Your task to perform on an android device: open chrome privacy settings Image 0: 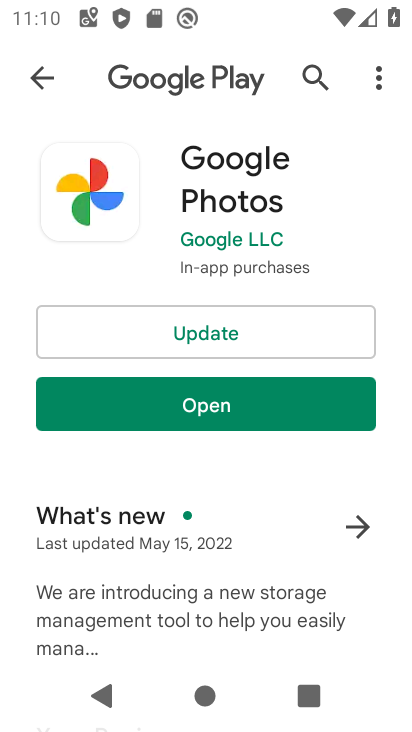
Step 0: press home button
Your task to perform on an android device: open chrome privacy settings Image 1: 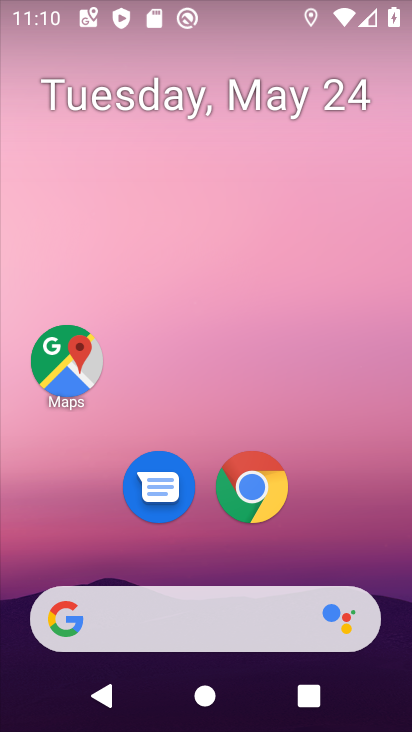
Step 1: click (219, 502)
Your task to perform on an android device: open chrome privacy settings Image 2: 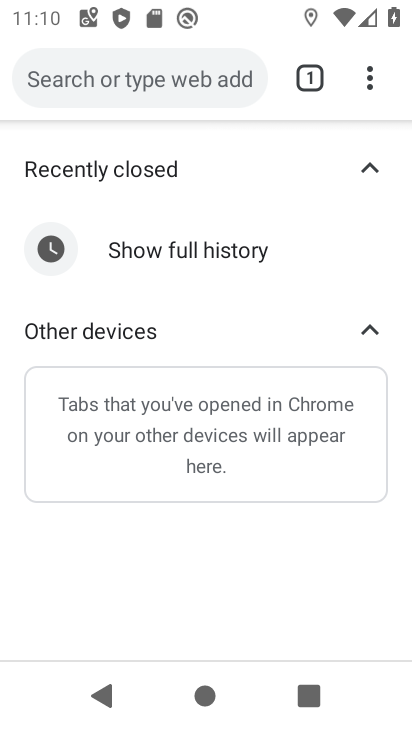
Step 2: drag from (374, 79) to (77, 554)
Your task to perform on an android device: open chrome privacy settings Image 3: 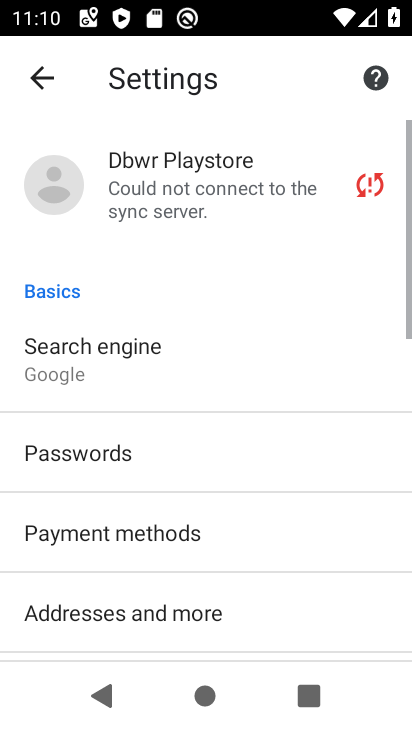
Step 3: drag from (122, 582) to (214, 101)
Your task to perform on an android device: open chrome privacy settings Image 4: 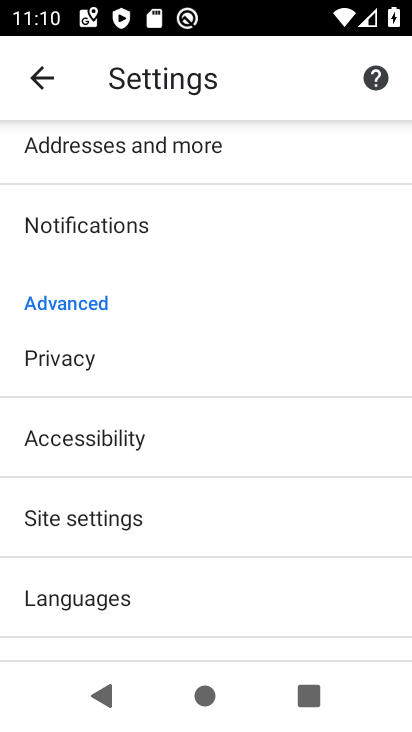
Step 4: drag from (78, 576) to (168, 172)
Your task to perform on an android device: open chrome privacy settings Image 5: 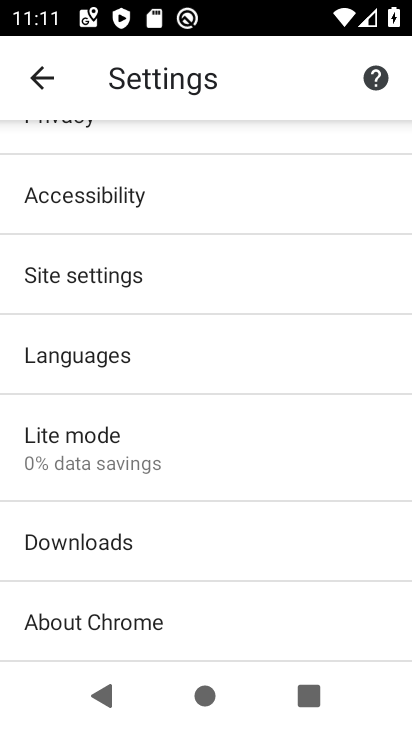
Step 5: drag from (175, 229) to (126, 617)
Your task to perform on an android device: open chrome privacy settings Image 6: 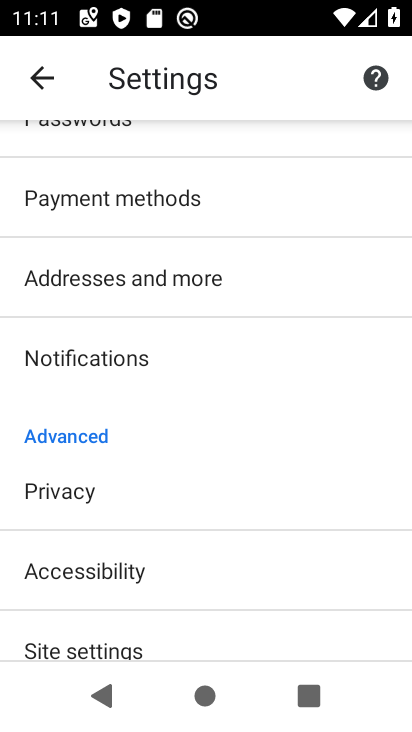
Step 6: click (53, 486)
Your task to perform on an android device: open chrome privacy settings Image 7: 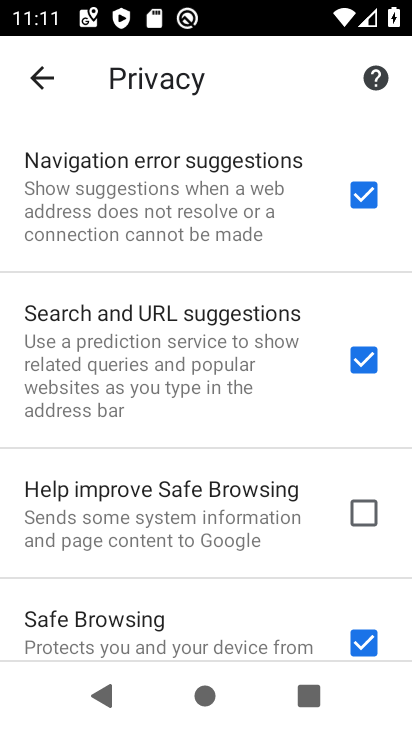
Step 7: task complete